Your task to perform on an android device: What's the weather today? Image 0: 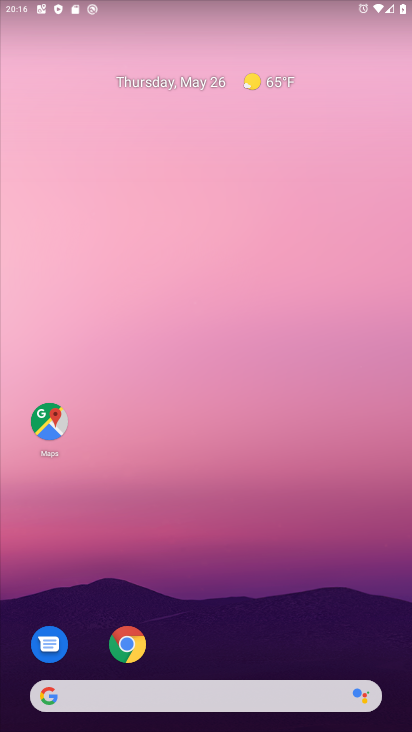
Step 0: drag from (185, 668) to (270, 13)
Your task to perform on an android device: What's the weather today? Image 1: 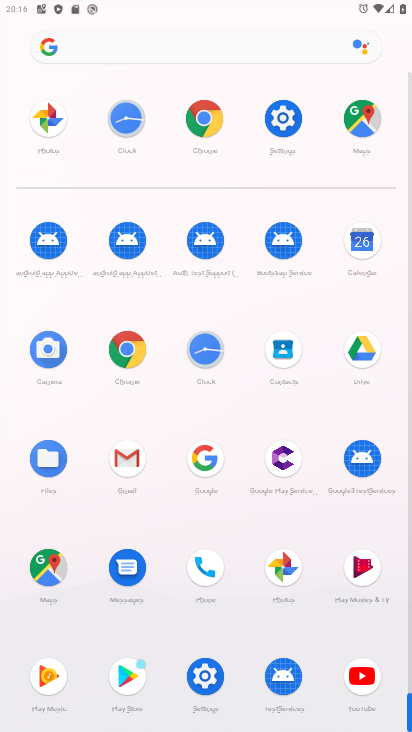
Step 1: click (128, 51)
Your task to perform on an android device: What's the weather today? Image 2: 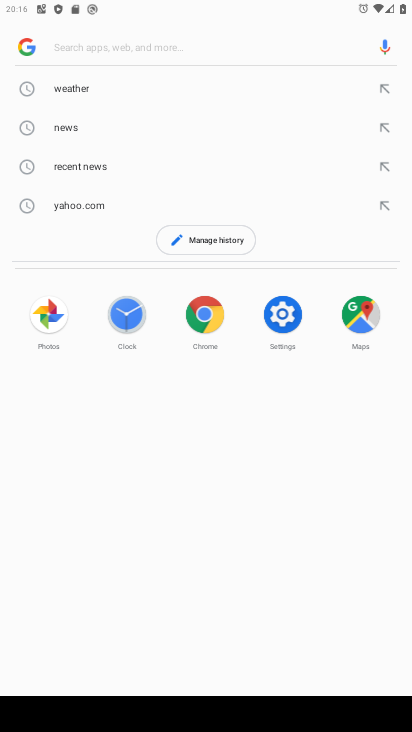
Step 2: type "weather today?"
Your task to perform on an android device: What's the weather today? Image 3: 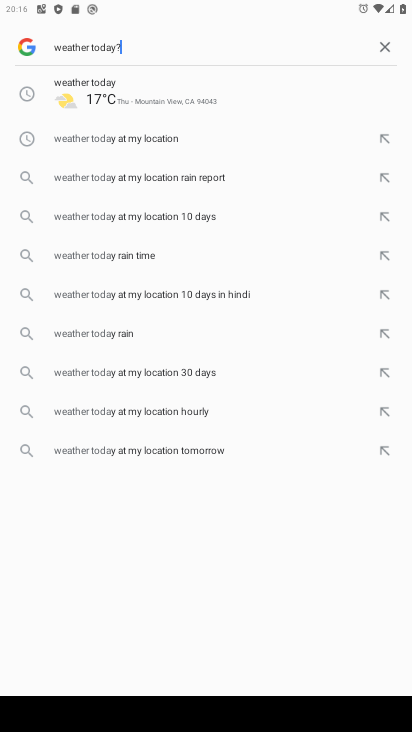
Step 3: type ""
Your task to perform on an android device: What's the weather today? Image 4: 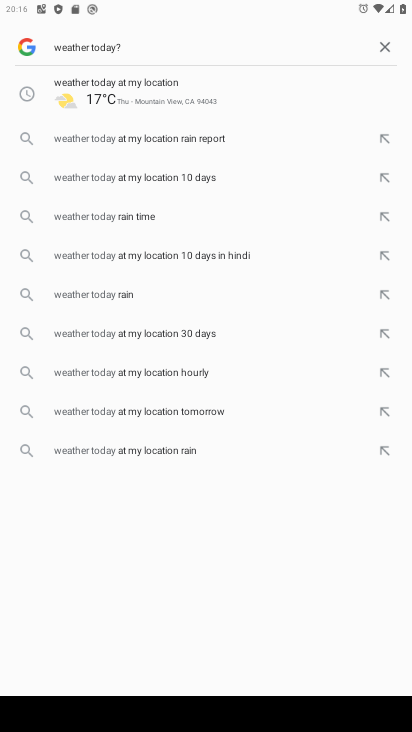
Step 4: click (52, 91)
Your task to perform on an android device: What's the weather today? Image 5: 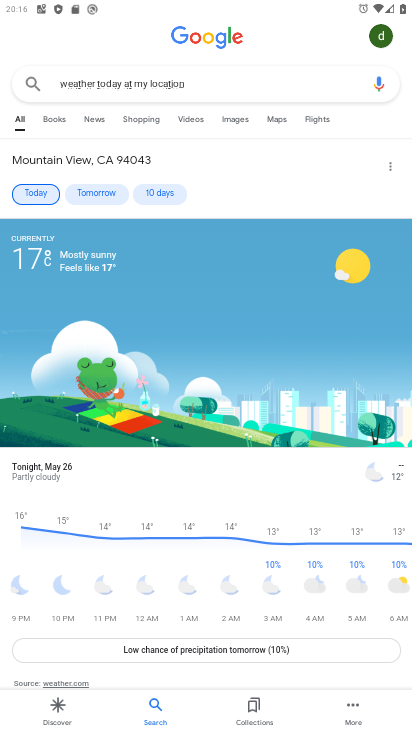
Step 5: task complete